Your task to perform on an android device: toggle location history Image 0: 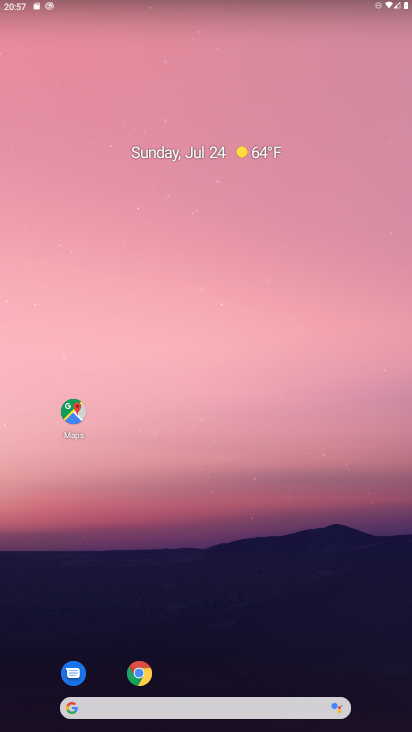
Step 0: drag from (304, 643) to (278, 75)
Your task to perform on an android device: toggle location history Image 1: 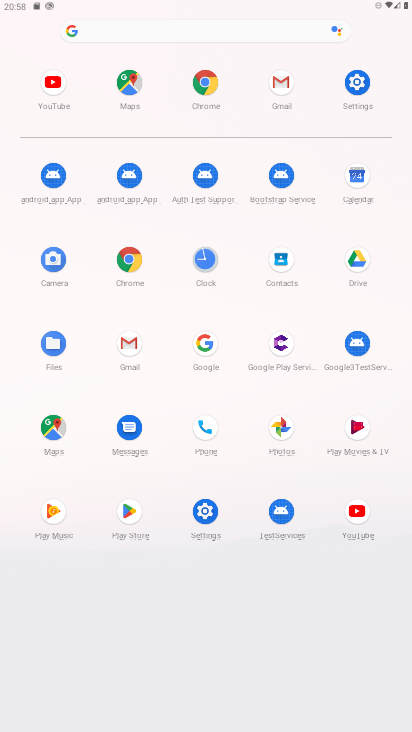
Step 1: click (199, 515)
Your task to perform on an android device: toggle location history Image 2: 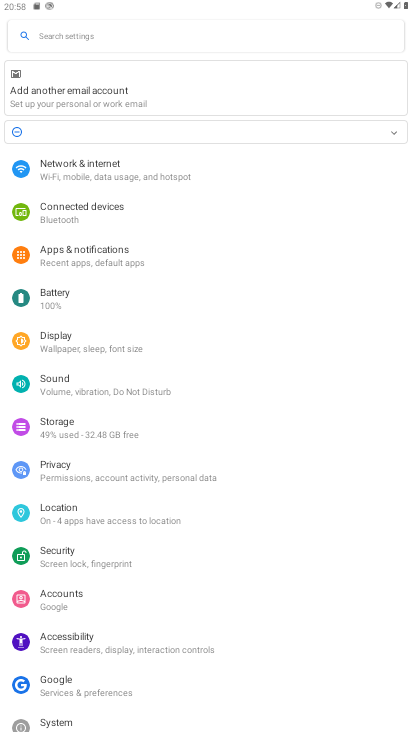
Step 2: click (89, 510)
Your task to perform on an android device: toggle location history Image 3: 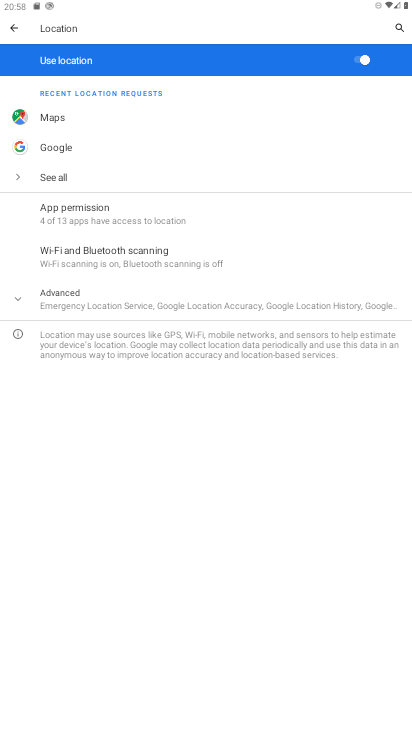
Step 3: click (126, 296)
Your task to perform on an android device: toggle location history Image 4: 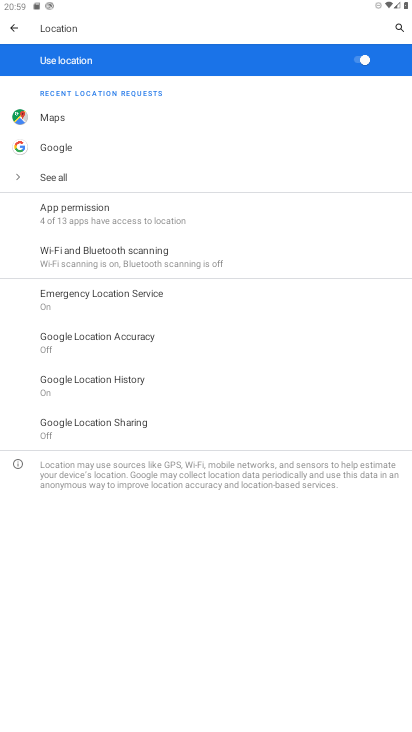
Step 4: click (123, 380)
Your task to perform on an android device: toggle location history Image 5: 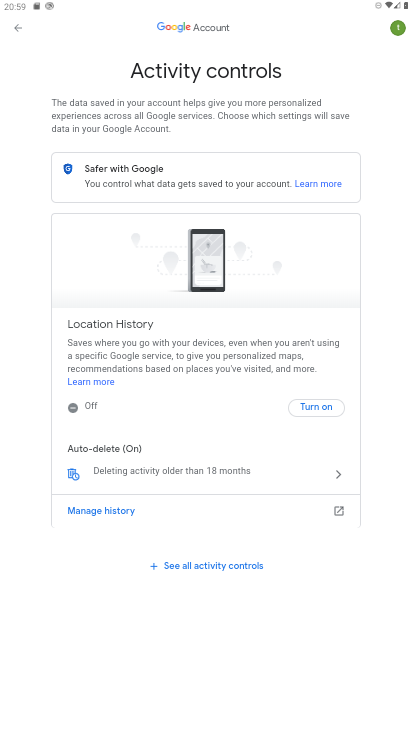
Step 5: click (334, 408)
Your task to perform on an android device: toggle location history Image 6: 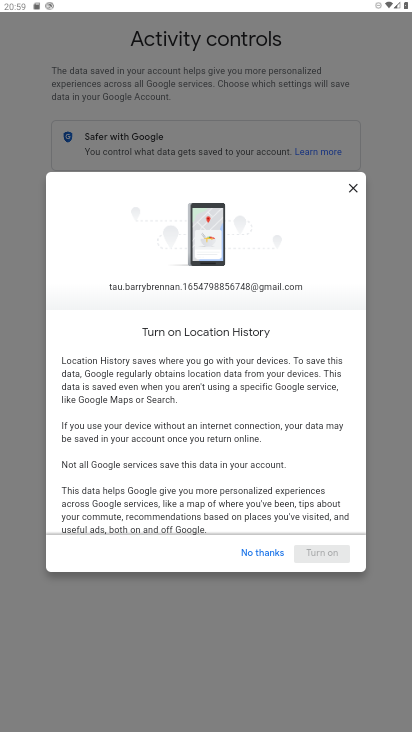
Step 6: drag from (295, 520) to (253, 219)
Your task to perform on an android device: toggle location history Image 7: 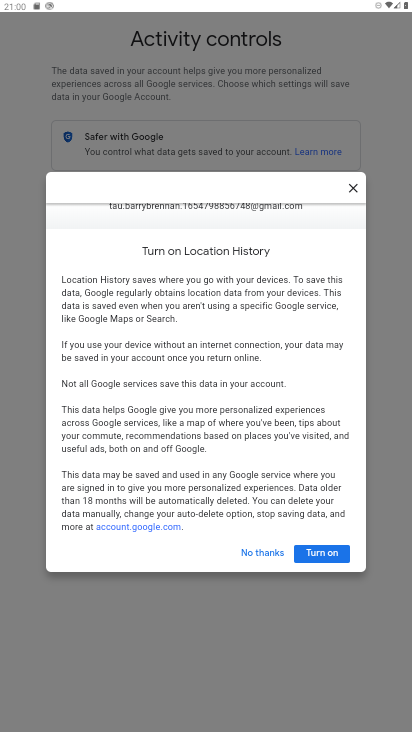
Step 7: click (328, 554)
Your task to perform on an android device: toggle location history Image 8: 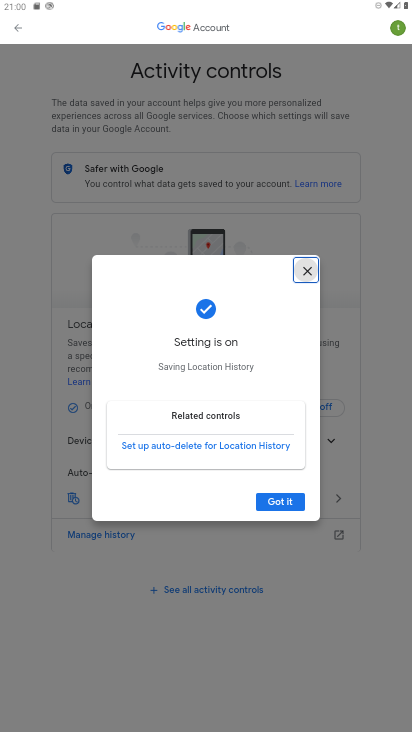
Step 8: click (280, 503)
Your task to perform on an android device: toggle location history Image 9: 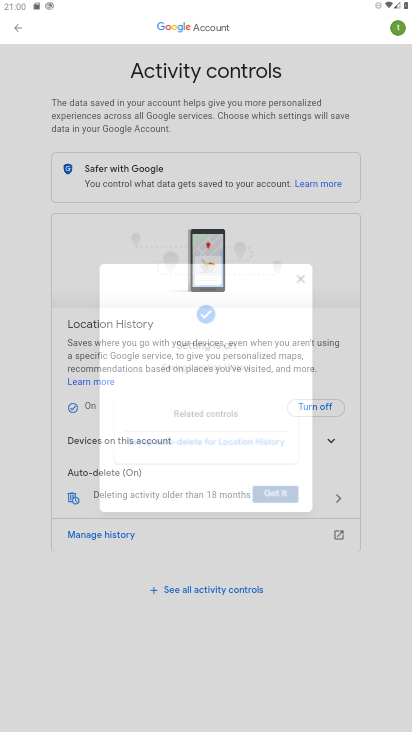
Step 9: task complete